Your task to perform on an android device: Open Youtube and go to "Your channel" Image 0: 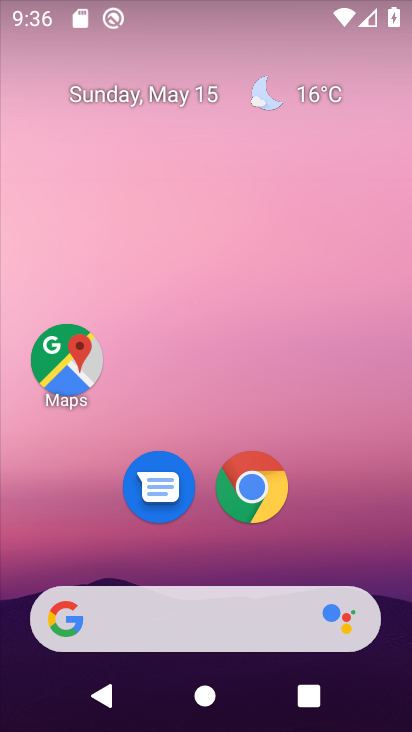
Step 0: drag from (383, 556) to (385, 94)
Your task to perform on an android device: Open Youtube and go to "Your channel" Image 1: 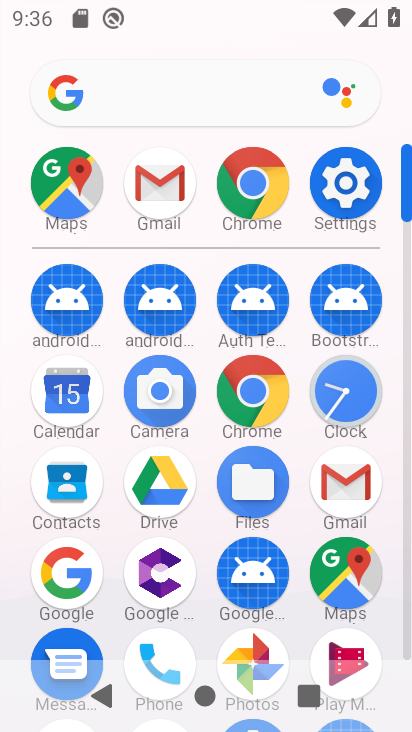
Step 1: drag from (137, 624) to (207, 303)
Your task to perform on an android device: Open Youtube and go to "Your channel" Image 2: 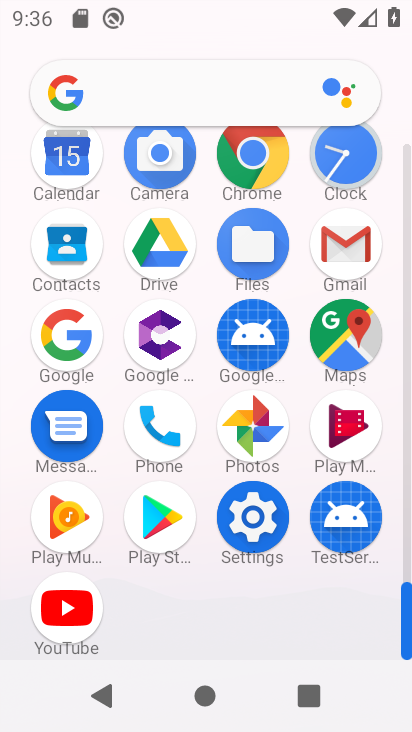
Step 2: click (86, 610)
Your task to perform on an android device: Open Youtube and go to "Your channel" Image 3: 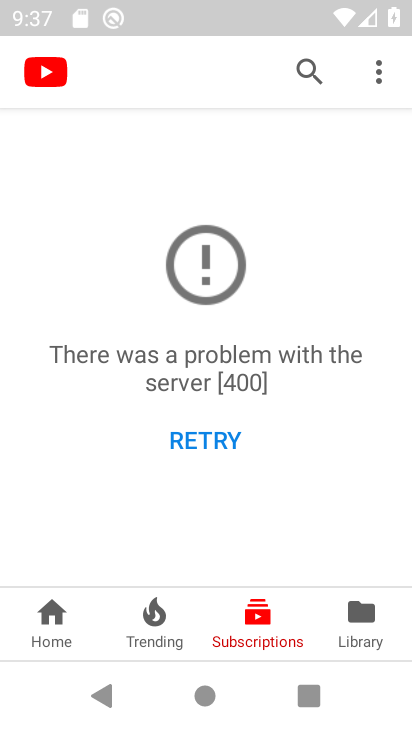
Step 3: click (384, 75)
Your task to perform on an android device: Open Youtube and go to "Your channel" Image 4: 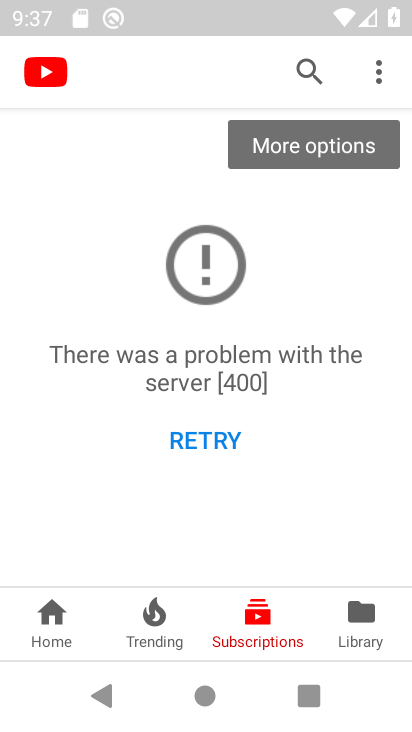
Step 4: task complete